Your task to perform on an android device: change notification settings in the gmail app Image 0: 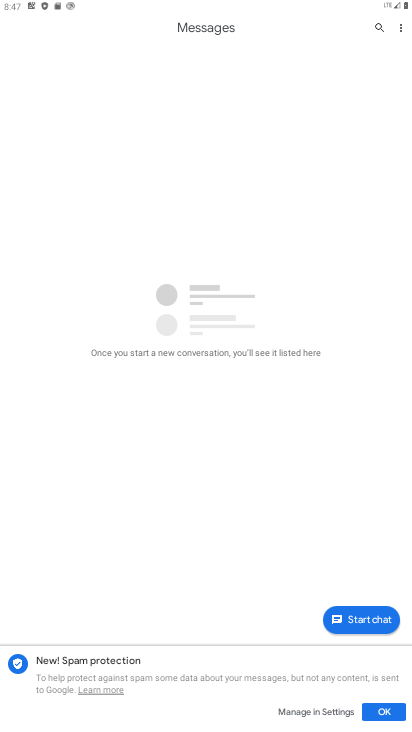
Step 0: press home button
Your task to perform on an android device: change notification settings in the gmail app Image 1: 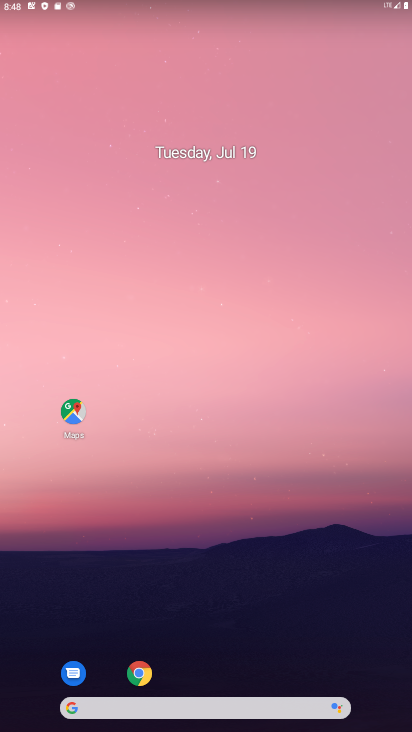
Step 1: drag from (359, 649) to (206, 7)
Your task to perform on an android device: change notification settings in the gmail app Image 2: 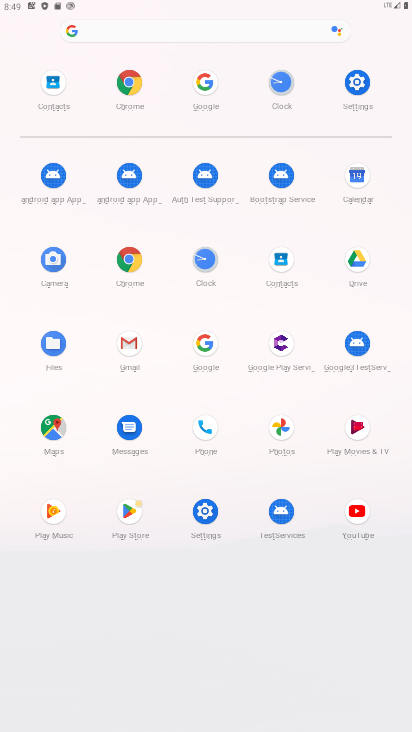
Step 2: click (127, 345)
Your task to perform on an android device: change notification settings in the gmail app Image 3: 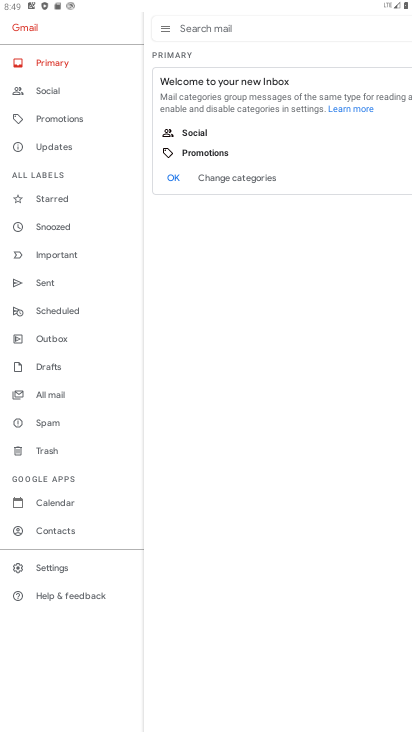
Step 3: click (56, 566)
Your task to perform on an android device: change notification settings in the gmail app Image 4: 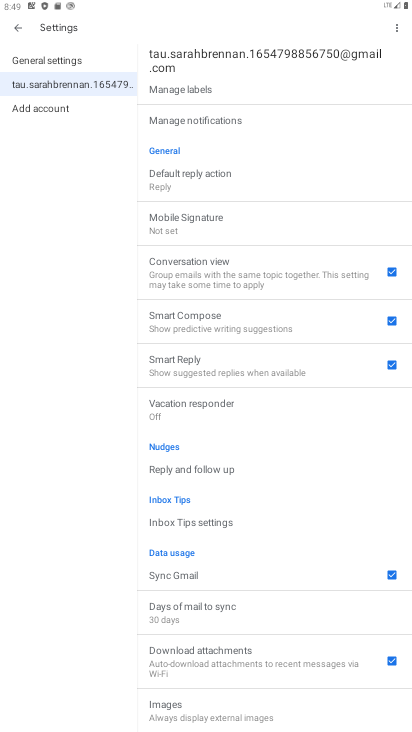
Step 4: drag from (177, 189) to (180, 730)
Your task to perform on an android device: change notification settings in the gmail app Image 5: 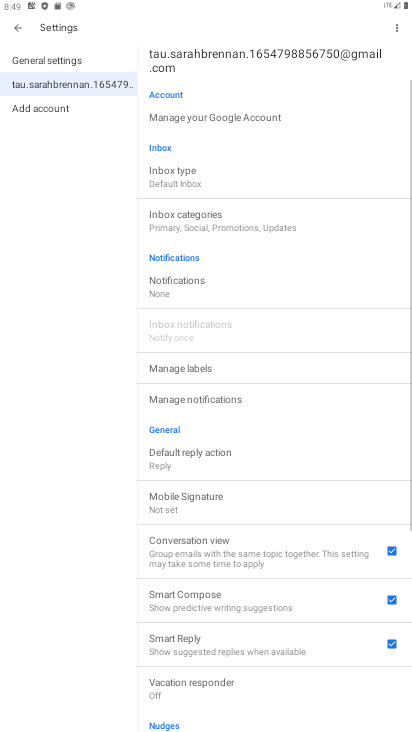
Step 5: click (205, 296)
Your task to perform on an android device: change notification settings in the gmail app Image 6: 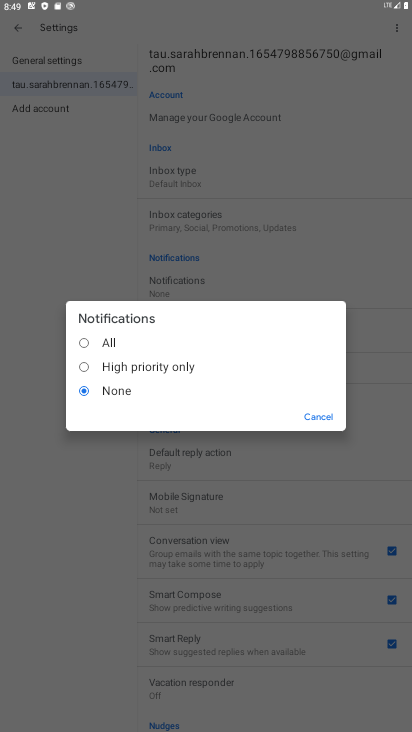
Step 6: click (86, 345)
Your task to perform on an android device: change notification settings in the gmail app Image 7: 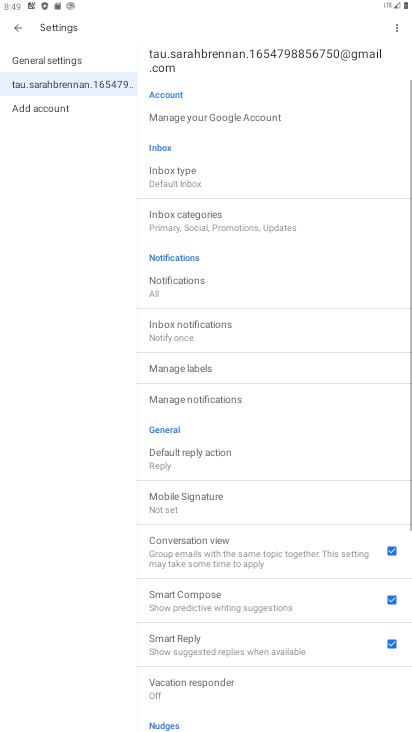
Step 7: task complete